Your task to perform on an android device: Go to Reddit.com Image 0: 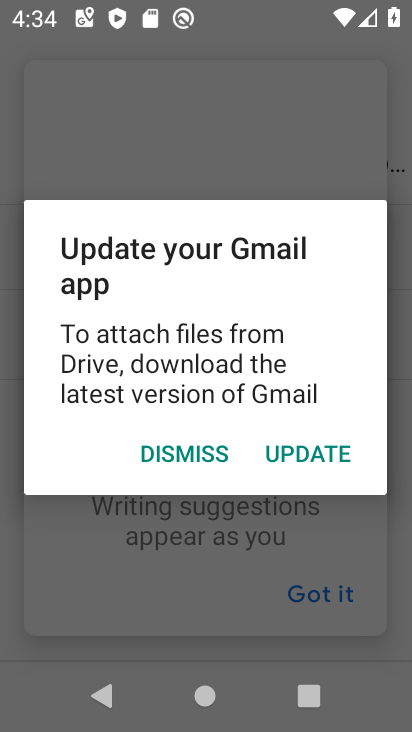
Step 0: press home button
Your task to perform on an android device: Go to Reddit.com Image 1: 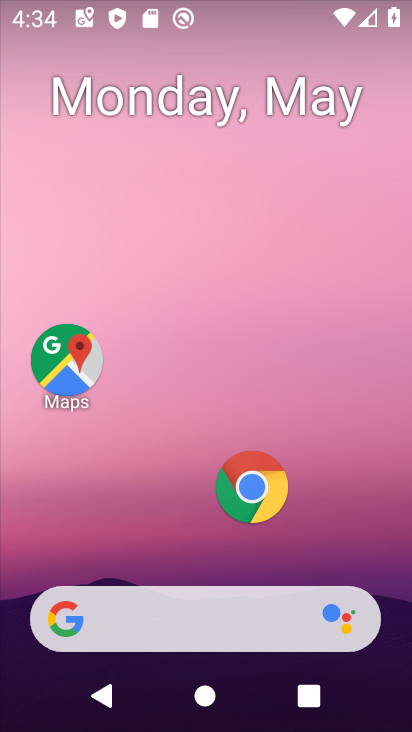
Step 1: click (255, 512)
Your task to perform on an android device: Go to Reddit.com Image 2: 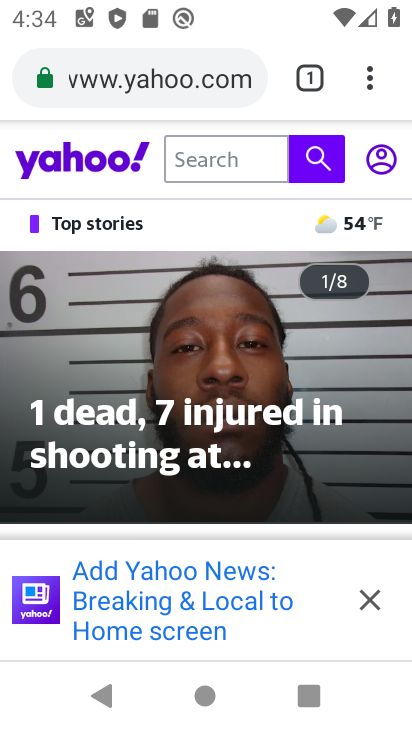
Step 2: click (307, 79)
Your task to perform on an android device: Go to Reddit.com Image 3: 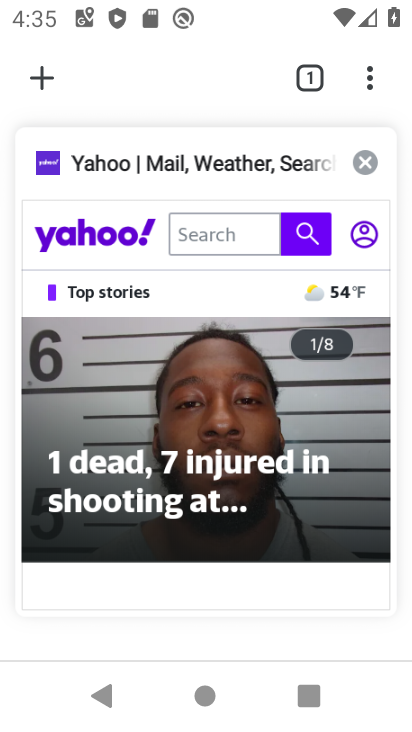
Step 3: click (368, 172)
Your task to perform on an android device: Go to Reddit.com Image 4: 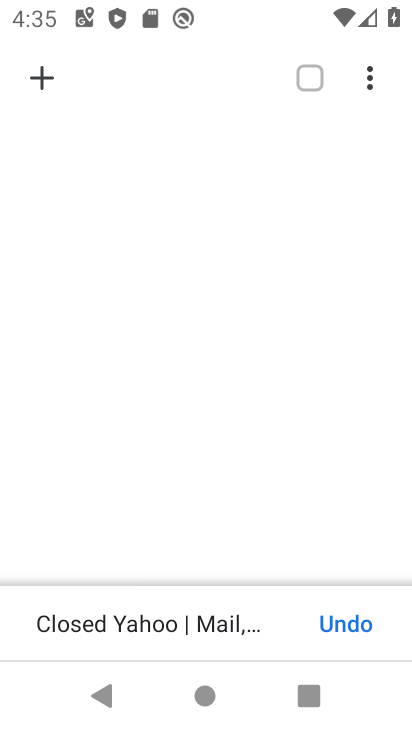
Step 4: click (46, 71)
Your task to perform on an android device: Go to Reddit.com Image 5: 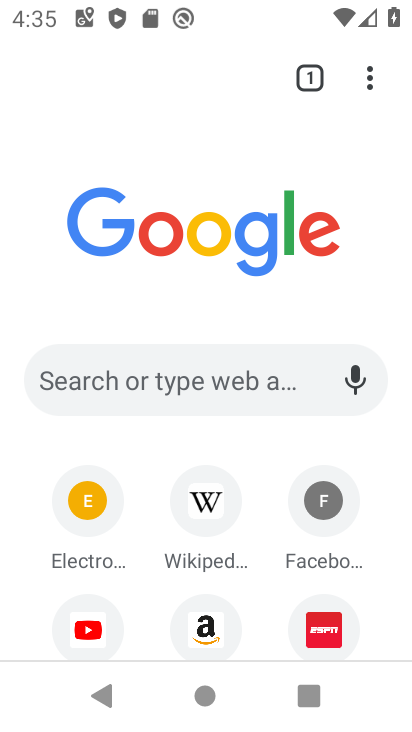
Step 5: click (213, 383)
Your task to perform on an android device: Go to Reddit.com Image 6: 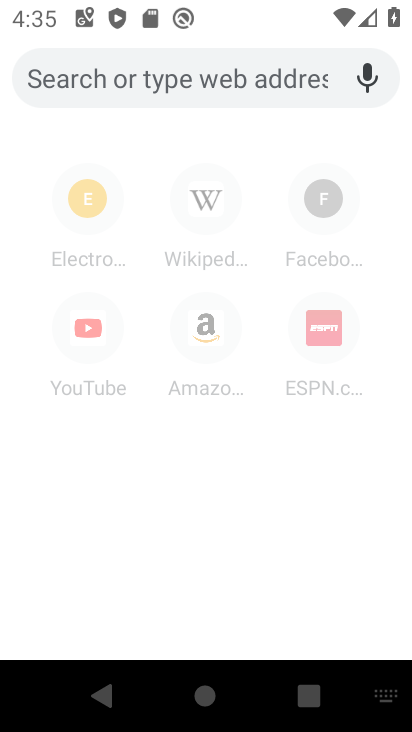
Step 6: type "reddit.com"
Your task to perform on an android device: Go to Reddit.com Image 7: 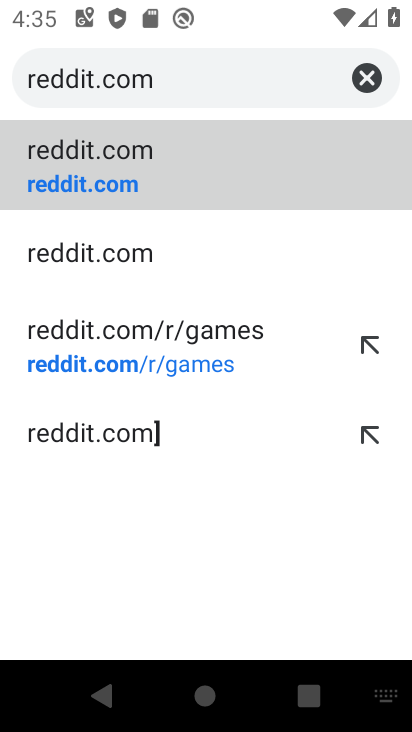
Step 7: click (235, 178)
Your task to perform on an android device: Go to Reddit.com Image 8: 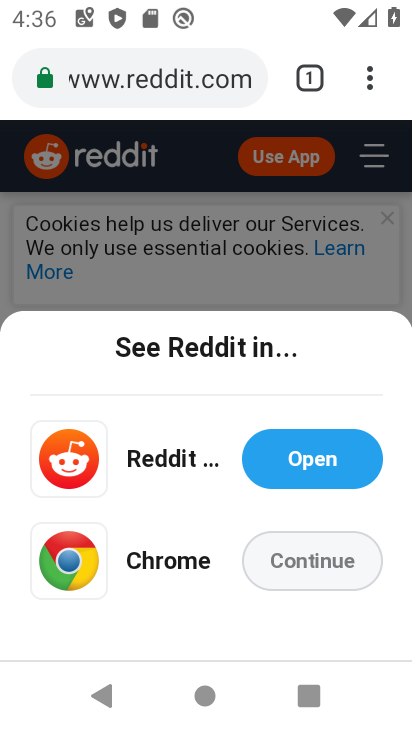
Step 8: click (300, 566)
Your task to perform on an android device: Go to Reddit.com Image 9: 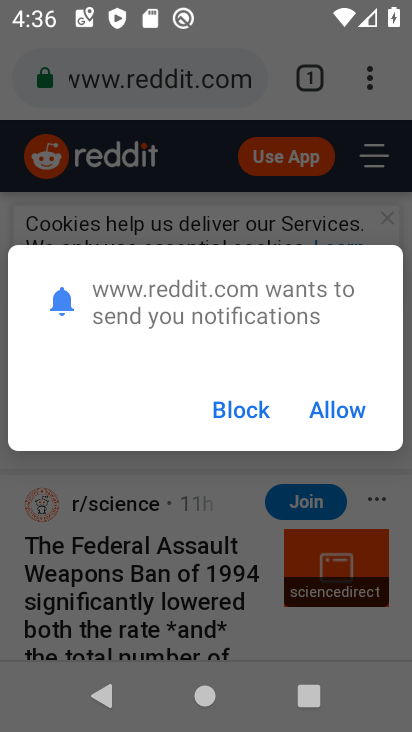
Step 9: task complete